Your task to perform on an android device: Show me popular games on the Play Store Image 0: 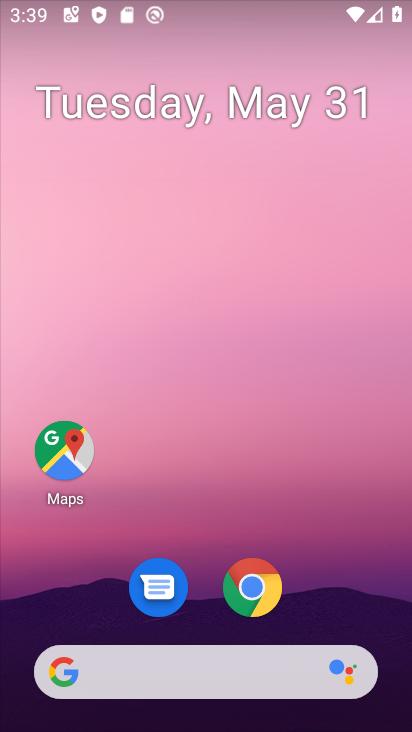
Step 0: drag from (317, 605) to (411, 313)
Your task to perform on an android device: Show me popular games on the Play Store Image 1: 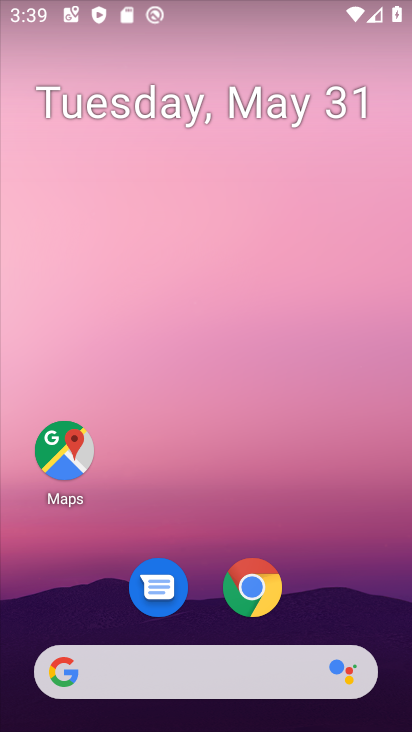
Step 1: drag from (200, 608) to (237, 15)
Your task to perform on an android device: Show me popular games on the Play Store Image 2: 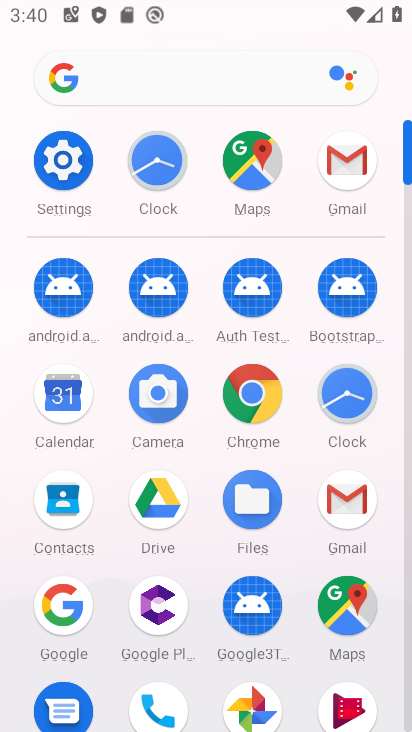
Step 2: drag from (191, 652) to (296, 174)
Your task to perform on an android device: Show me popular games on the Play Store Image 3: 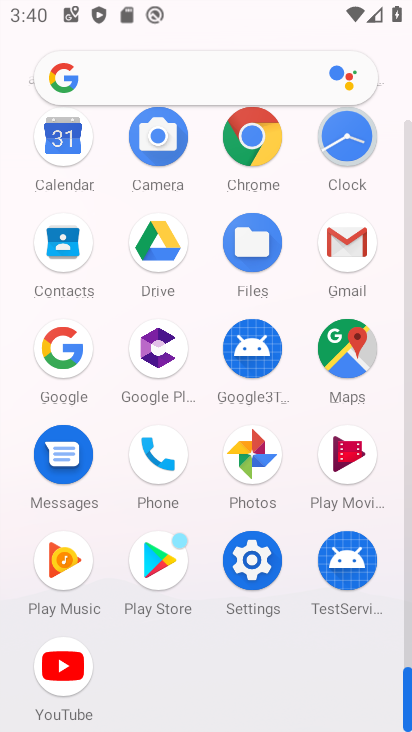
Step 3: click (165, 566)
Your task to perform on an android device: Show me popular games on the Play Store Image 4: 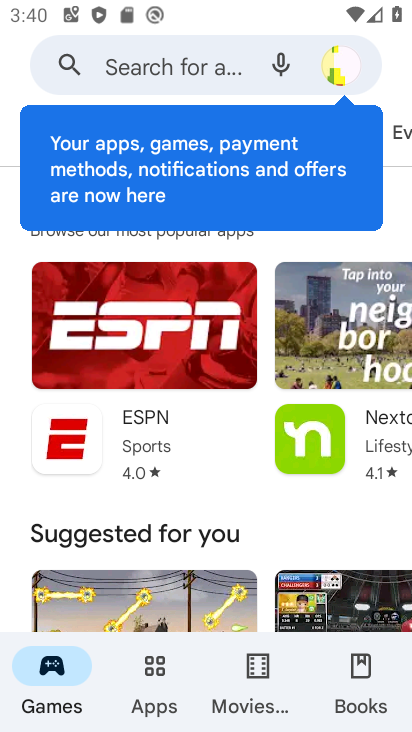
Step 4: click (72, 689)
Your task to perform on an android device: Show me popular games on the Play Store Image 5: 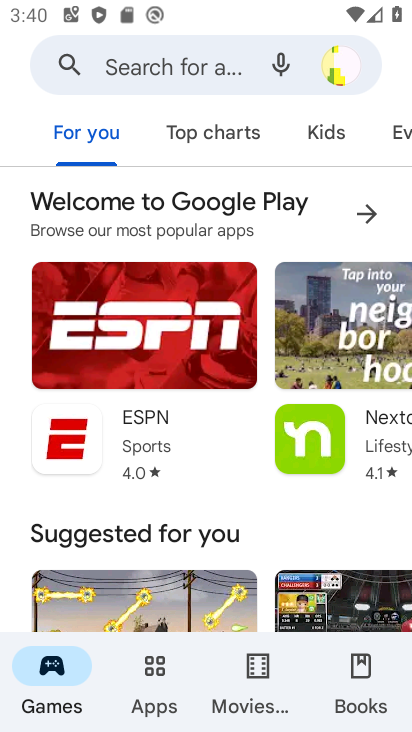
Step 5: click (99, 128)
Your task to perform on an android device: Show me popular games on the Play Store Image 6: 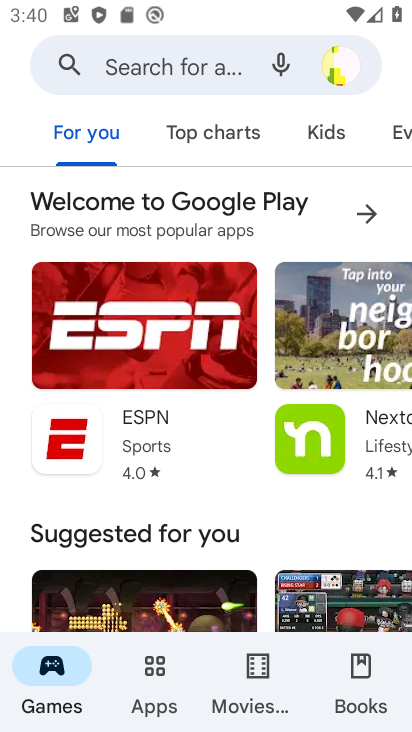
Step 6: click (226, 129)
Your task to perform on an android device: Show me popular games on the Play Store Image 7: 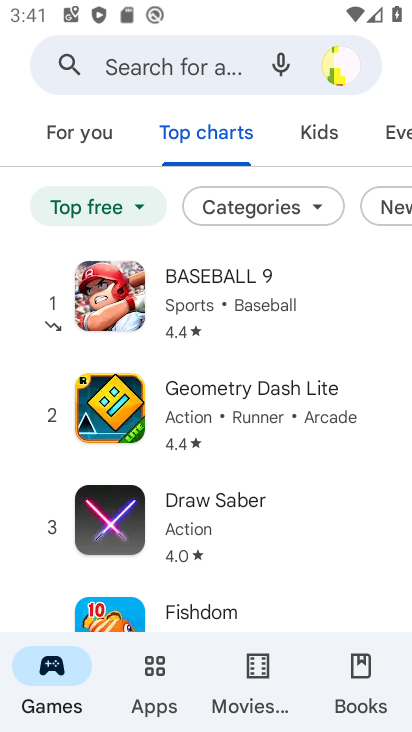
Step 7: task complete